Your task to perform on an android device: change alarm snooze length Image 0: 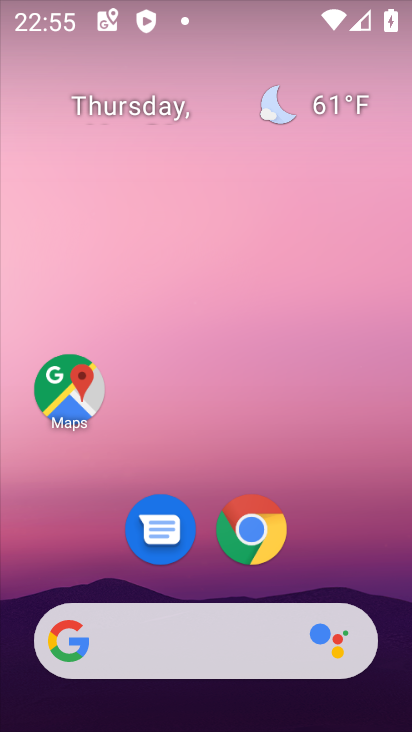
Step 0: drag from (379, 537) to (288, 50)
Your task to perform on an android device: change alarm snooze length Image 1: 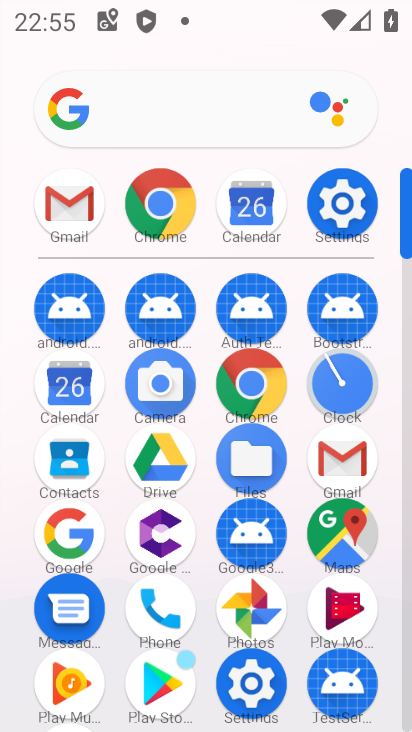
Step 1: click (337, 210)
Your task to perform on an android device: change alarm snooze length Image 2: 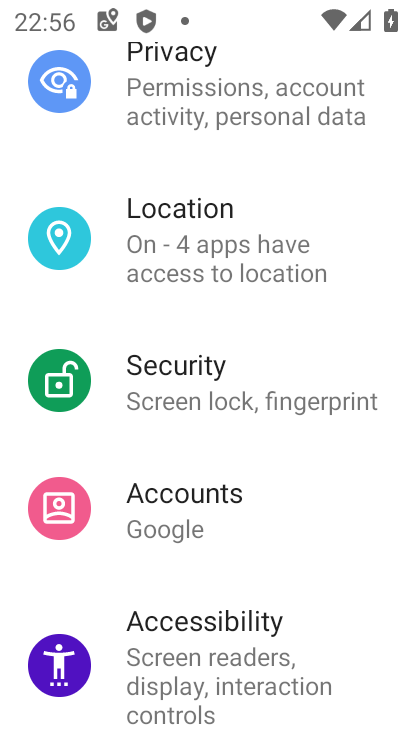
Step 2: press home button
Your task to perform on an android device: change alarm snooze length Image 3: 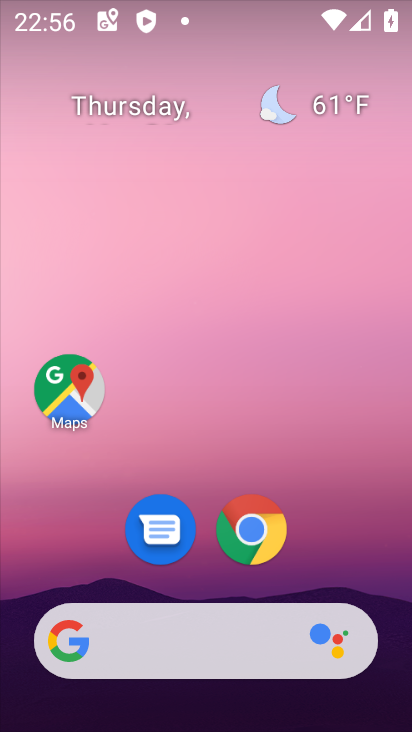
Step 3: drag from (374, 500) to (275, 0)
Your task to perform on an android device: change alarm snooze length Image 4: 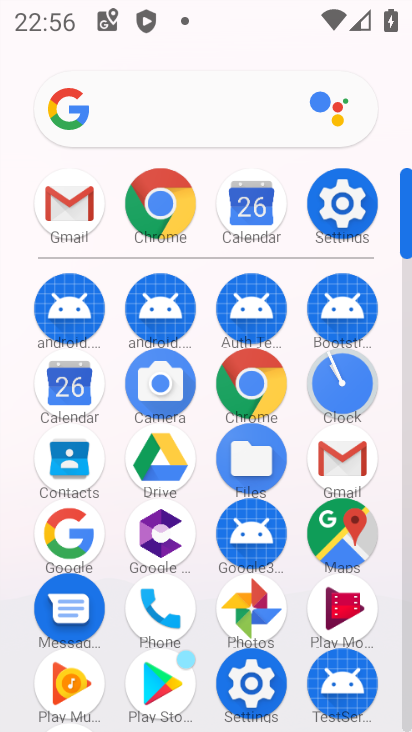
Step 4: click (341, 375)
Your task to perform on an android device: change alarm snooze length Image 5: 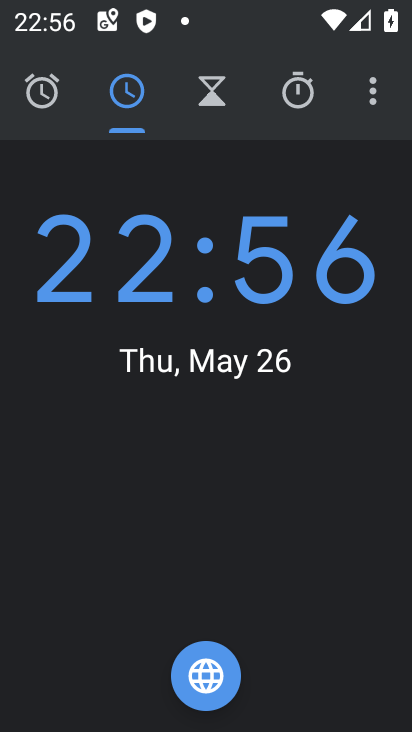
Step 5: click (371, 97)
Your task to perform on an android device: change alarm snooze length Image 6: 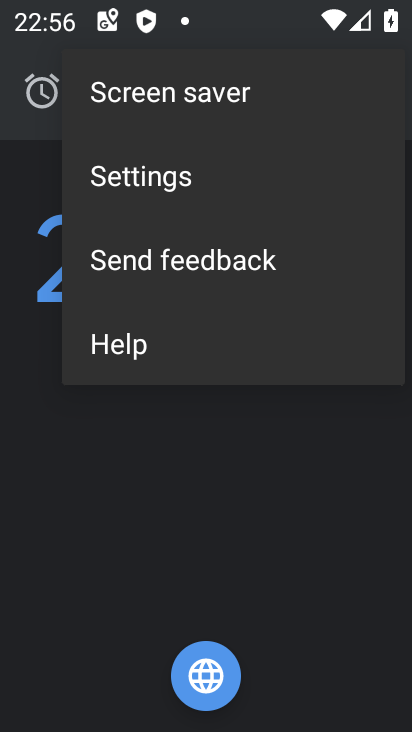
Step 6: click (205, 171)
Your task to perform on an android device: change alarm snooze length Image 7: 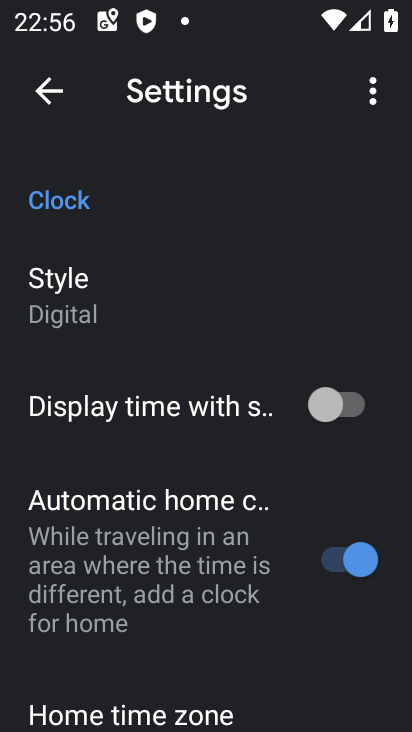
Step 7: task complete